Your task to perform on an android device: open device folders in google photos Image 0: 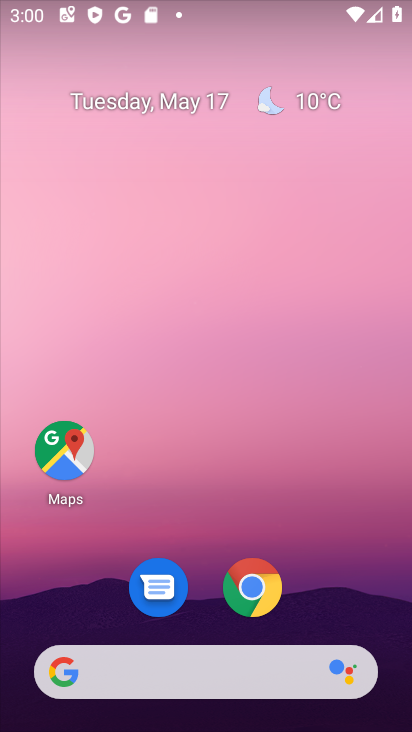
Step 0: drag from (343, 542) to (242, 57)
Your task to perform on an android device: open device folders in google photos Image 1: 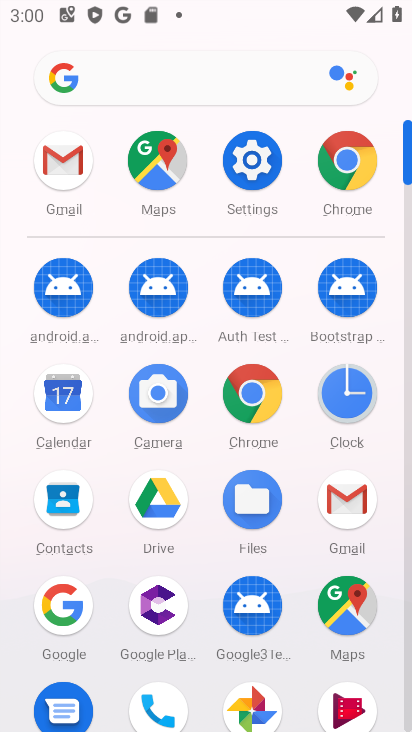
Step 1: drag from (117, 671) to (106, 301)
Your task to perform on an android device: open device folders in google photos Image 2: 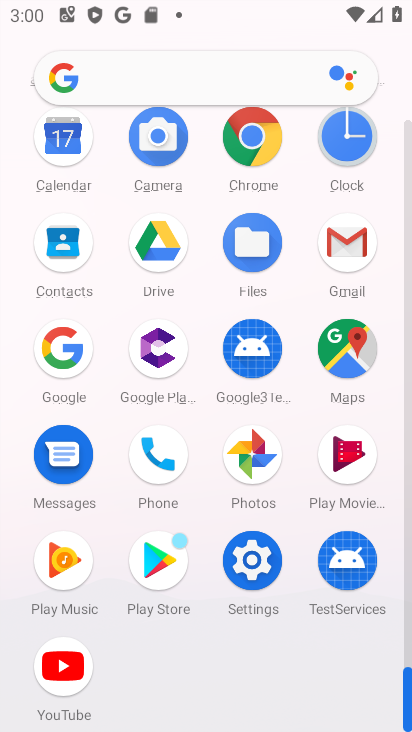
Step 2: click (252, 450)
Your task to perform on an android device: open device folders in google photos Image 3: 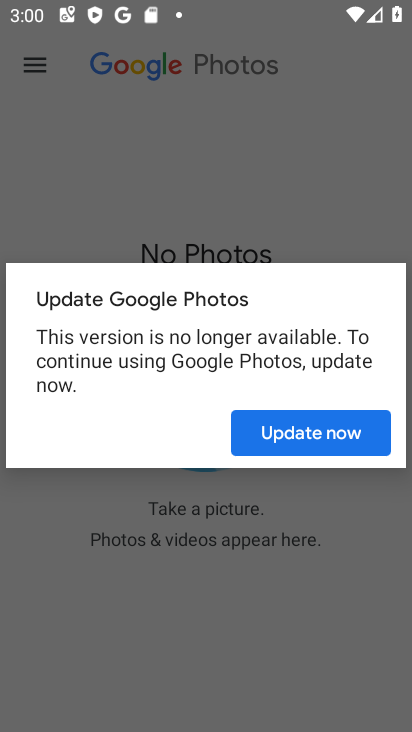
Step 3: click (260, 428)
Your task to perform on an android device: open device folders in google photos Image 4: 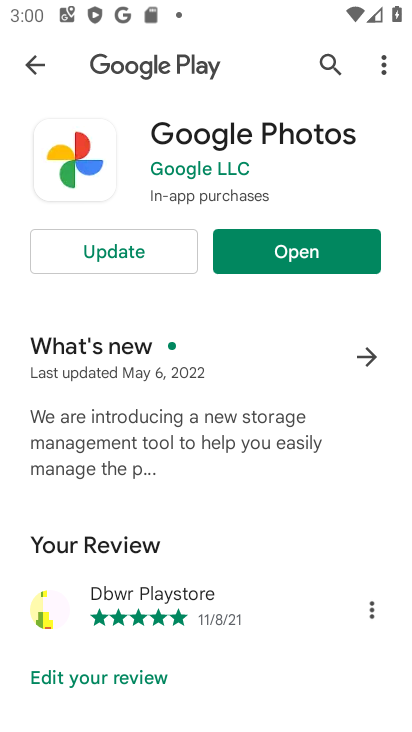
Step 4: click (154, 263)
Your task to perform on an android device: open device folders in google photos Image 5: 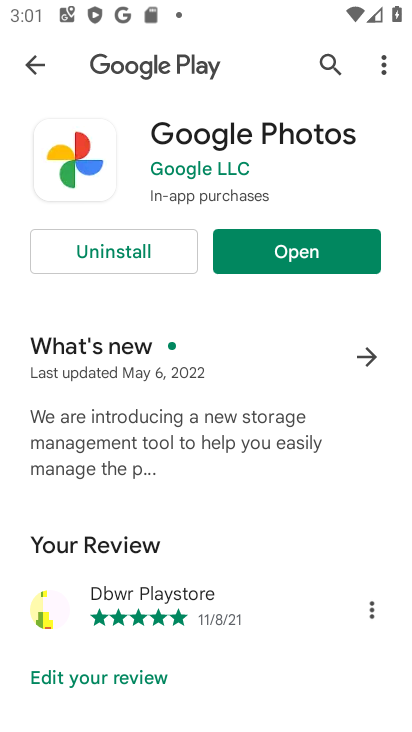
Step 5: click (290, 246)
Your task to perform on an android device: open device folders in google photos Image 6: 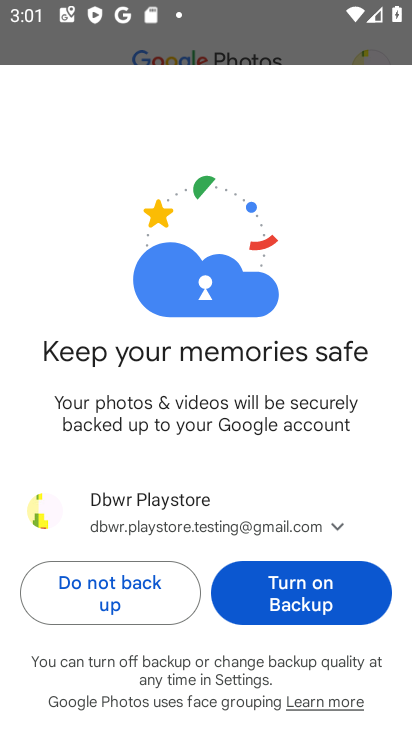
Step 6: click (334, 598)
Your task to perform on an android device: open device folders in google photos Image 7: 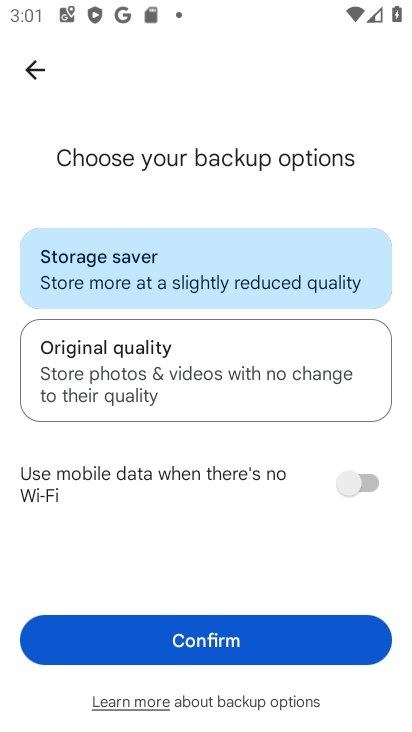
Step 7: click (233, 642)
Your task to perform on an android device: open device folders in google photos Image 8: 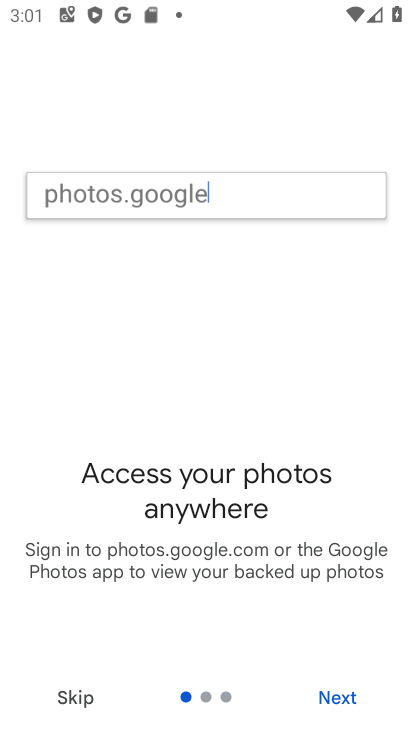
Step 8: click (324, 695)
Your task to perform on an android device: open device folders in google photos Image 9: 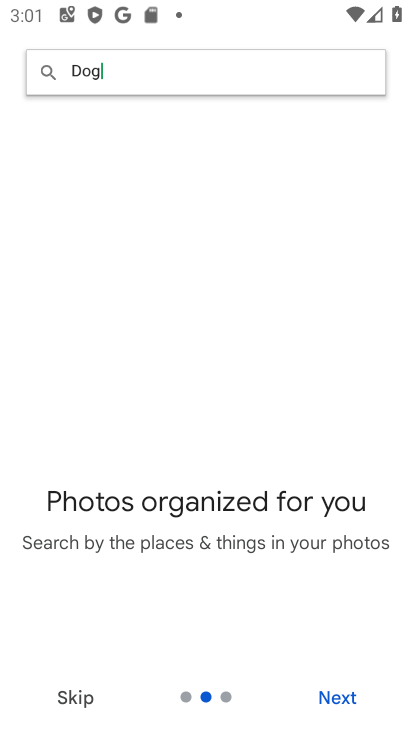
Step 9: click (324, 695)
Your task to perform on an android device: open device folders in google photos Image 10: 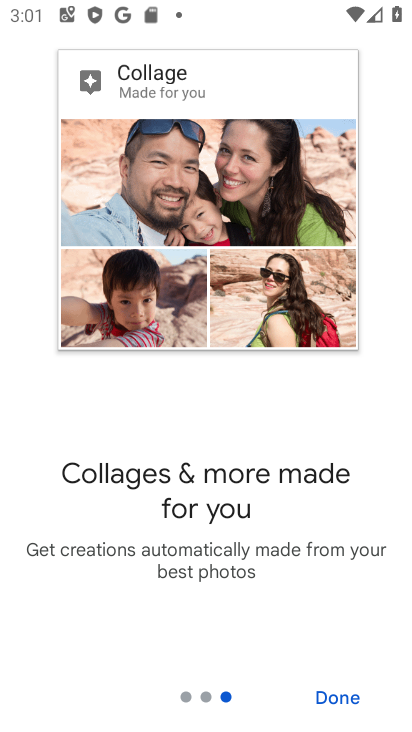
Step 10: click (324, 695)
Your task to perform on an android device: open device folders in google photos Image 11: 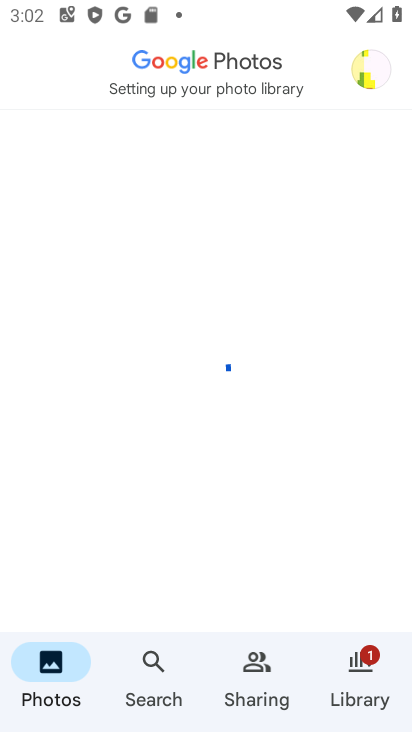
Step 11: click (362, 672)
Your task to perform on an android device: open device folders in google photos Image 12: 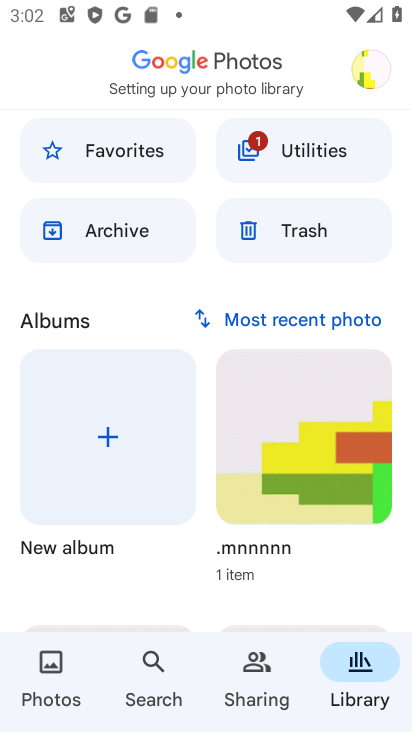
Step 12: click (367, 65)
Your task to perform on an android device: open device folders in google photos Image 13: 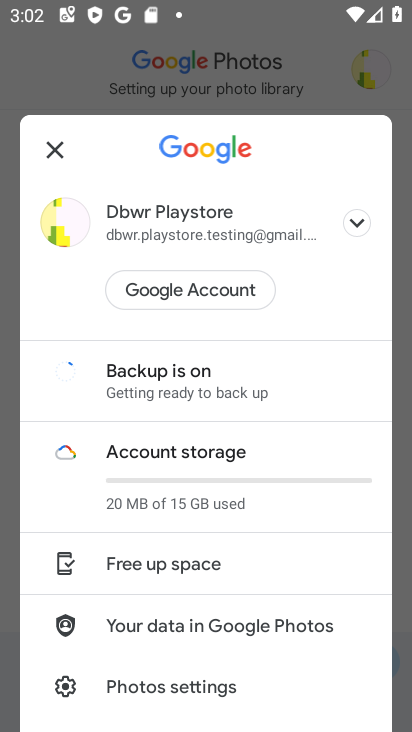
Step 13: click (195, 680)
Your task to perform on an android device: open device folders in google photos Image 14: 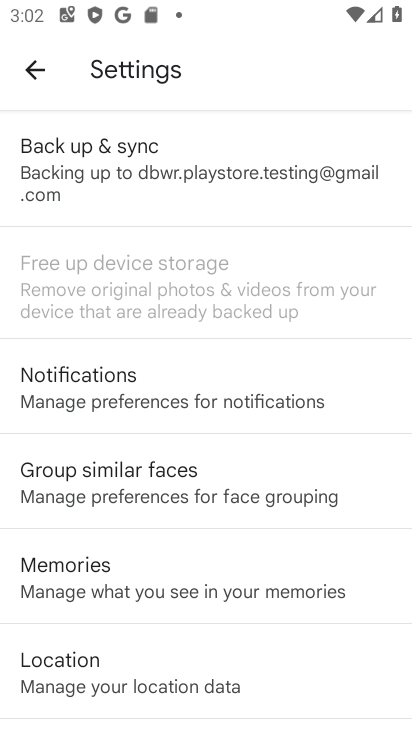
Step 14: click (37, 73)
Your task to perform on an android device: open device folders in google photos Image 15: 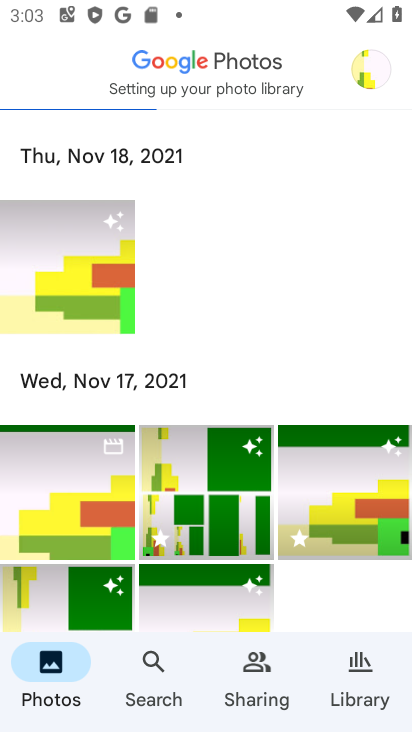
Step 15: task complete